Your task to perform on an android device: Go to settings Image 0: 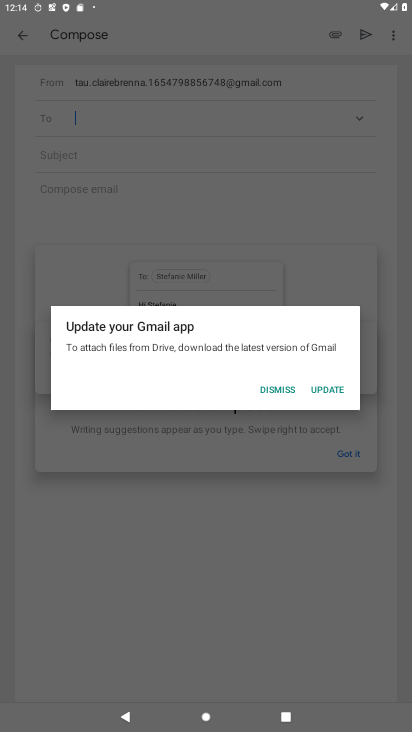
Step 0: press home button
Your task to perform on an android device: Go to settings Image 1: 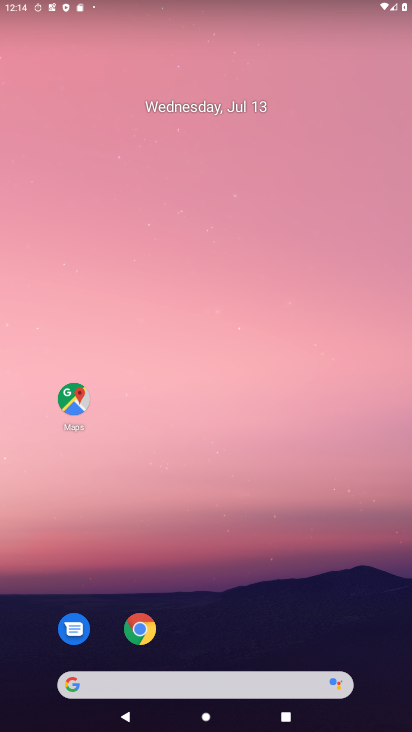
Step 1: drag from (203, 642) to (176, 195)
Your task to perform on an android device: Go to settings Image 2: 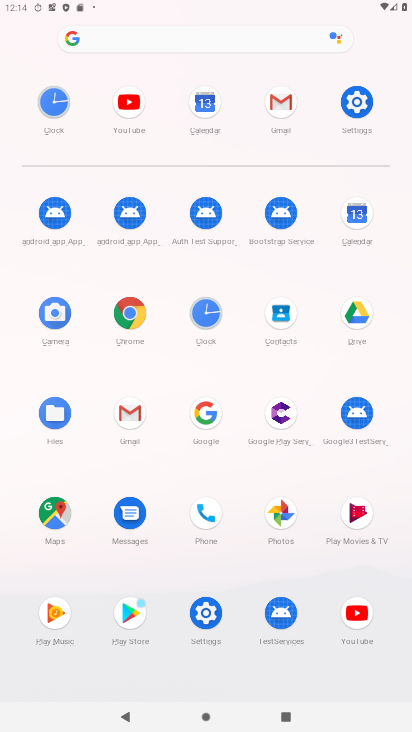
Step 2: click (358, 88)
Your task to perform on an android device: Go to settings Image 3: 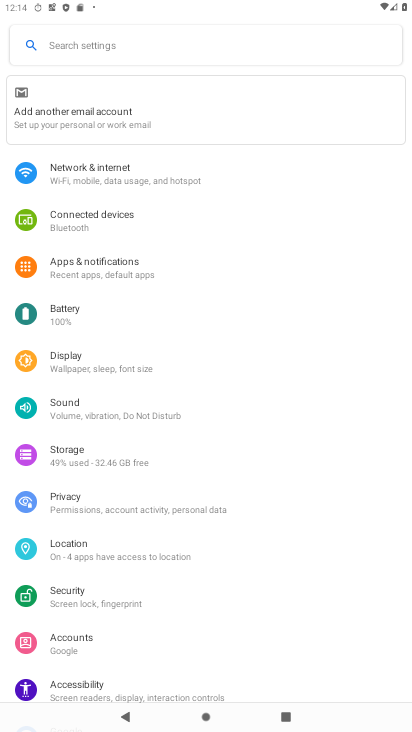
Step 3: task complete